Your task to perform on an android device: Do I have any events tomorrow? Image 0: 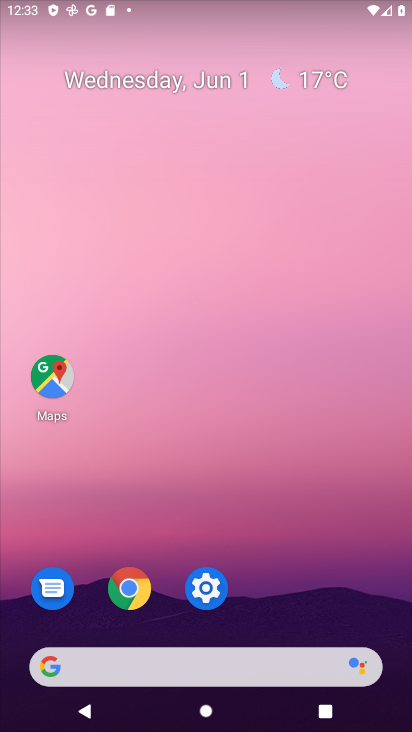
Step 0: press home button
Your task to perform on an android device: Do I have any events tomorrow? Image 1: 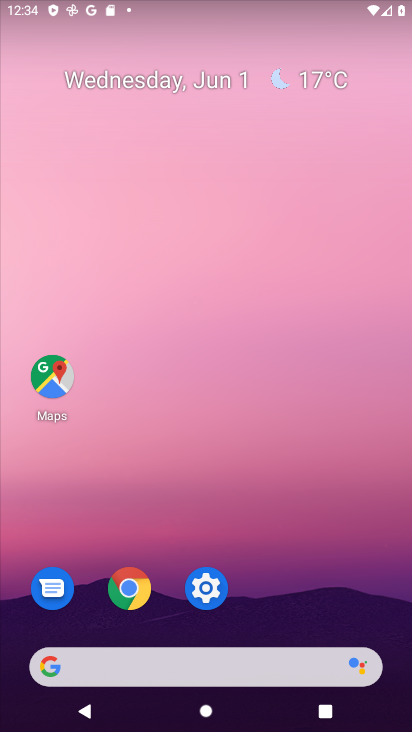
Step 1: drag from (161, 679) to (164, 235)
Your task to perform on an android device: Do I have any events tomorrow? Image 2: 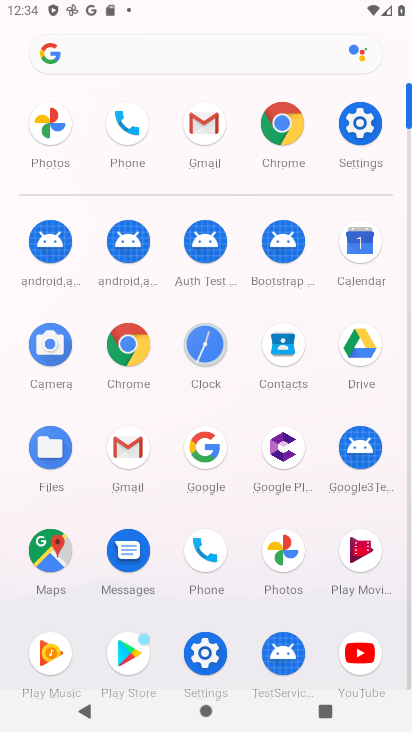
Step 2: click (348, 244)
Your task to perform on an android device: Do I have any events tomorrow? Image 3: 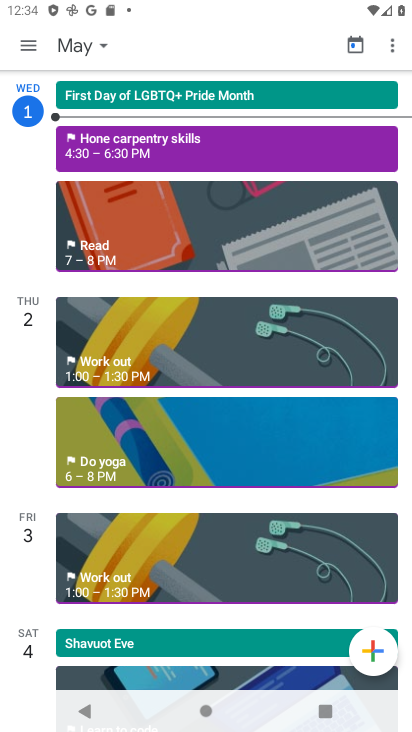
Step 3: task complete